Your task to perform on an android device: Open the calendar app, open the side menu, and click the "Day" option Image 0: 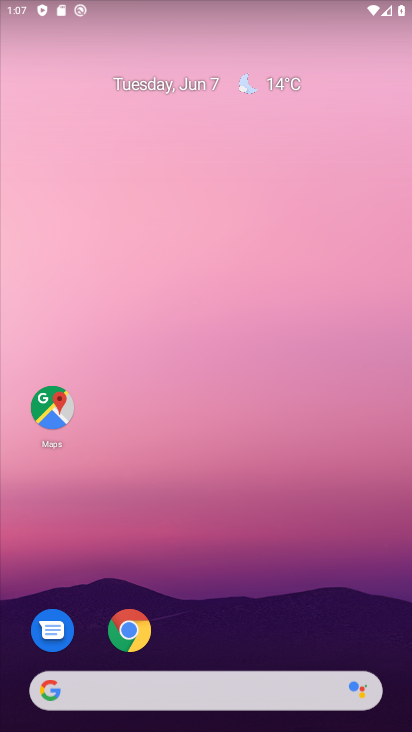
Step 0: drag from (280, 602) to (273, 1)
Your task to perform on an android device: Open the calendar app, open the side menu, and click the "Day" option Image 1: 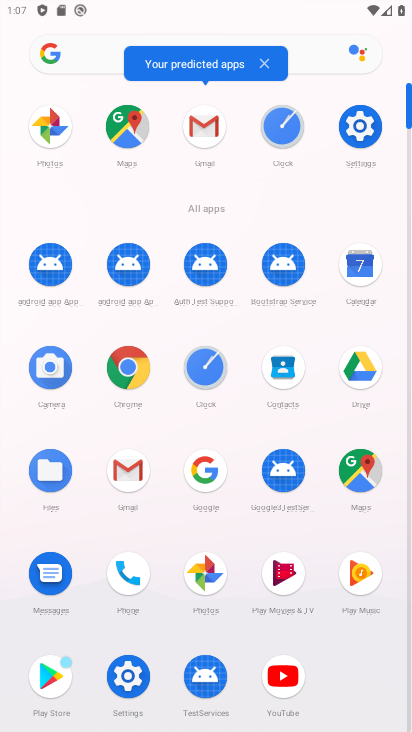
Step 1: click (360, 266)
Your task to perform on an android device: Open the calendar app, open the side menu, and click the "Day" option Image 2: 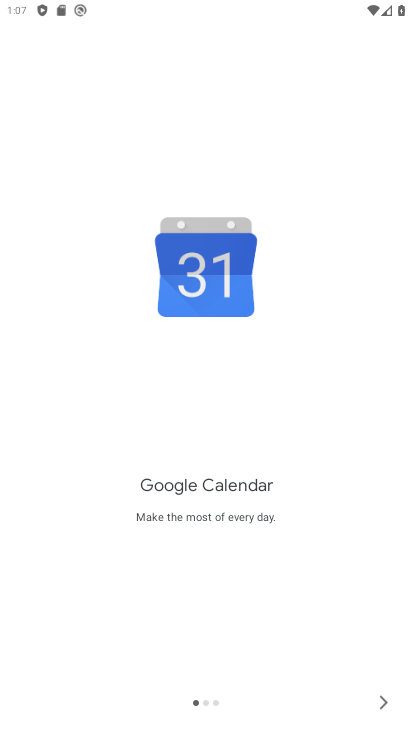
Step 2: click (384, 702)
Your task to perform on an android device: Open the calendar app, open the side menu, and click the "Day" option Image 3: 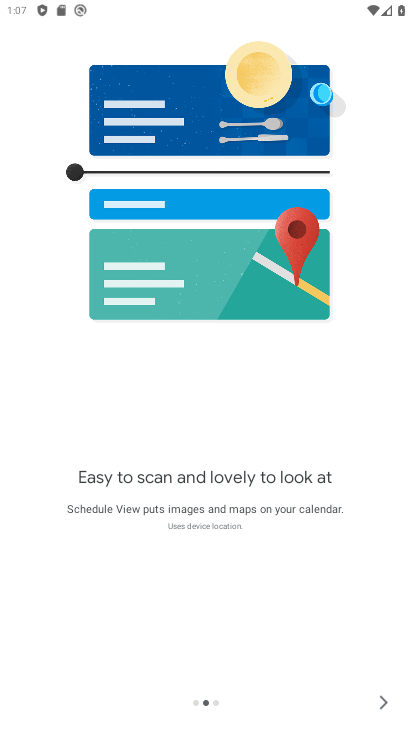
Step 3: click (384, 702)
Your task to perform on an android device: Open the calendar app, open the side menu, and click the "Day" option Image 4: 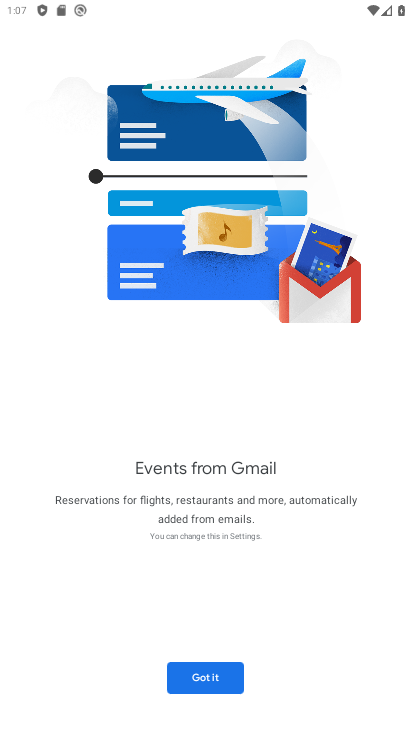
Step 4: click (210, 681)
Your task to perform on an android device: Open the calendar app, open the side menu, and click the "Day" option Image 5: 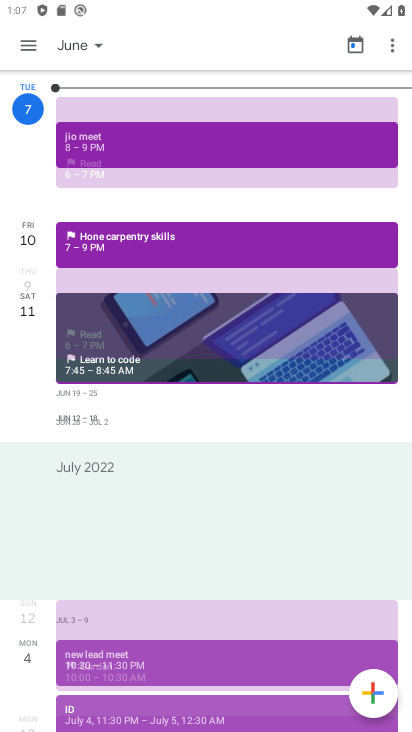
Step 5: click (27, 46)
Your task to perform on an android device: Open the calendar app, open the side menu, and click the "Day" option Image 6: 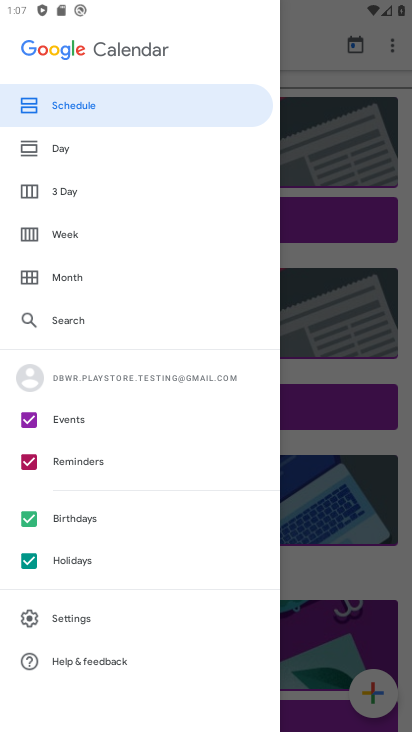
Step 6: click (58, 149)
Your task to perform on an android device: Open the calendar app, open the side menu, and click the "Day" option Image 7: 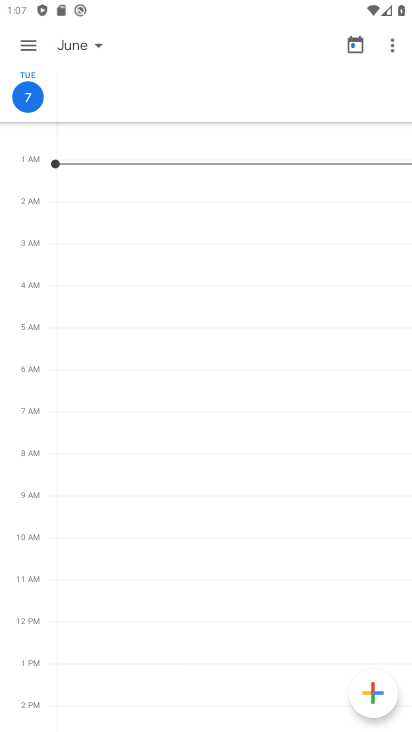
Step 7: task complete